Your task to perform on an android device: Is it going to rain tomorrow? Image 0: 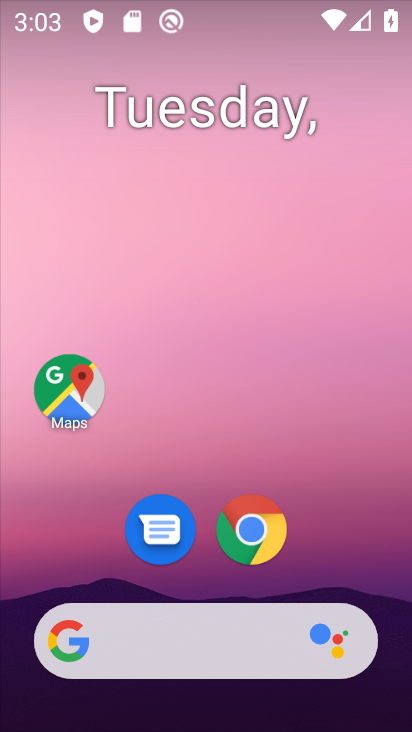
Step 0: drag from (227, 604) to (220, 307)
Your task to perform on an android device: Is it going to rain tomorrow? Image 1: 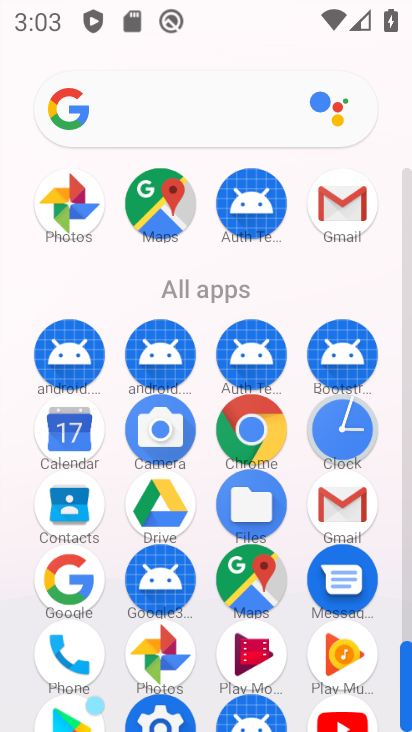
Step 1: click (70, 558)
Your task to perform on an android device: Is it going to rain tomorrow? Image 2: 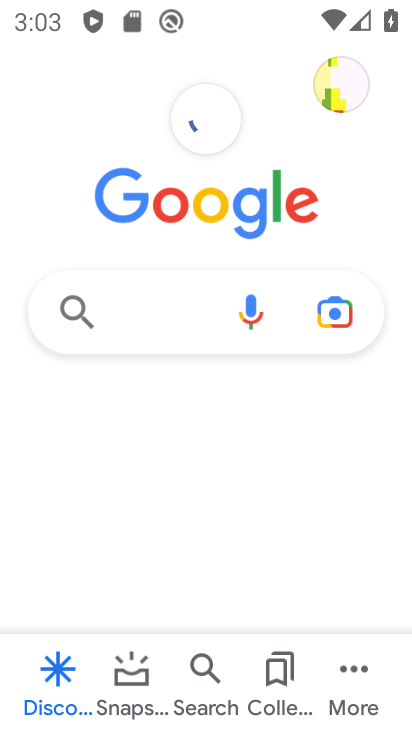
Step 2: click (171, 310)
Your task to perform on an android device: Is it going to rain tomorrow? Image 3: 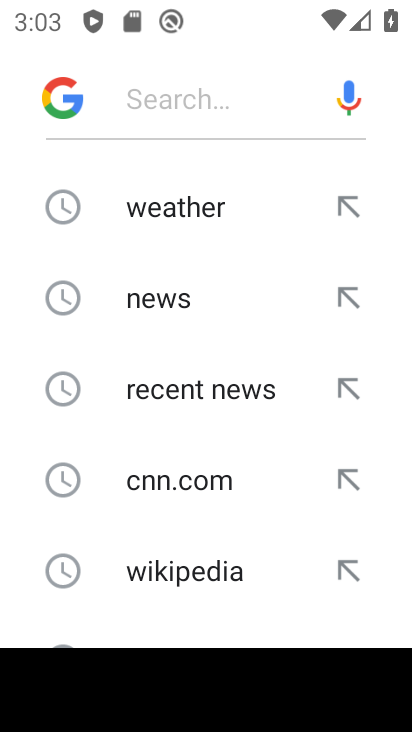
Step 3: drag from (189, 533) to (197, 176)
Your task to perform on an android device: Is it going to rain tomorrow? Image 4: 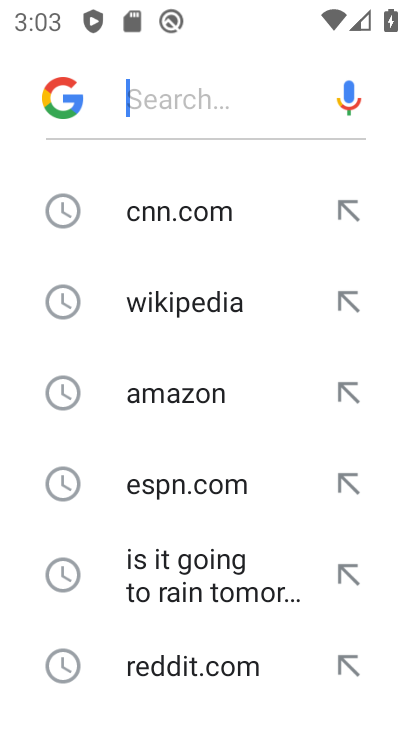
Step 4: click (210, 578)
Your task to perform on an android device: Is it going to rain tomorrow? Image 5: 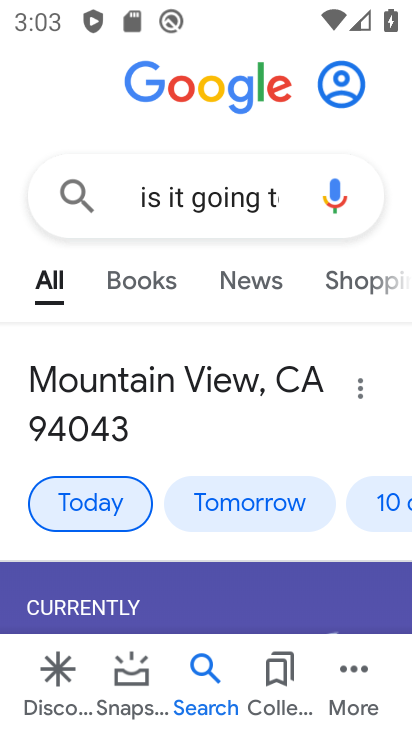
Step 5: drag from (259, 539) to (264, 248)
Your task to perform on an android device: Is it going to rain tomorrow? Image 6: 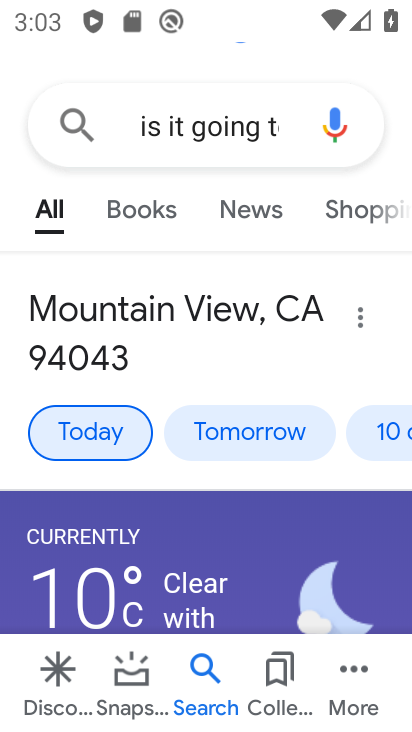
Step 6: click (288, 424)
Your task to perform on an android device: Is it going to rain tomorrow? Image 7: 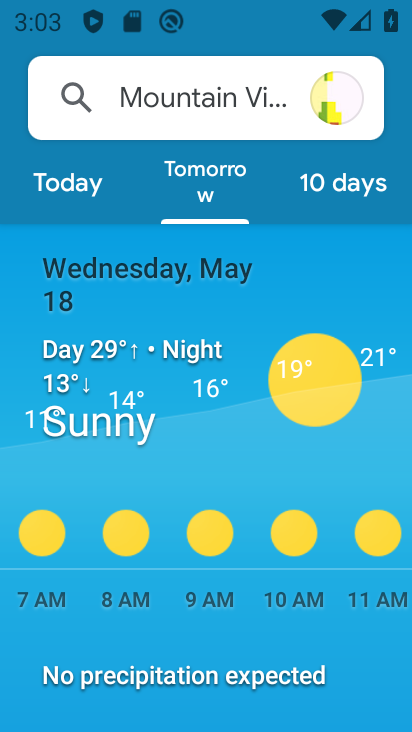
Step 7: task complete